Your task to perform on an android device: turn off notifications in google photos Image 0: 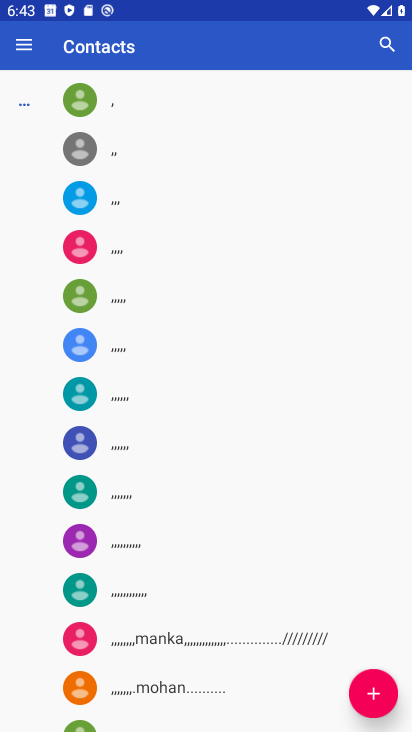
Step 0: press home button
Your task to perform on an android device: turn off notifications in google photos Image 1: 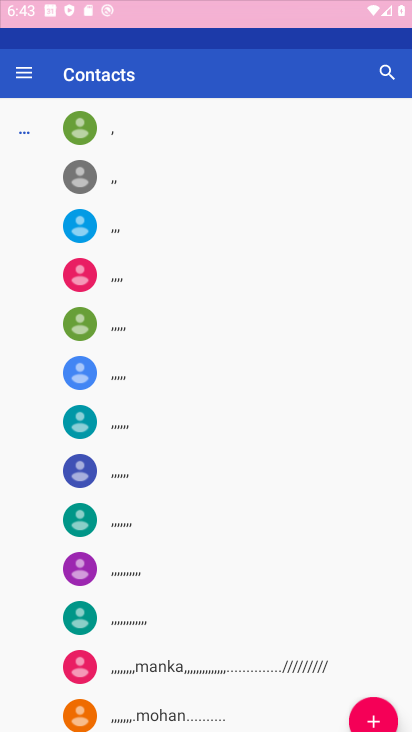
Step 1: drag from (339, 655) to (307, 94)
Your task to perform on an android device: turn off notifications in google photos Image 2: 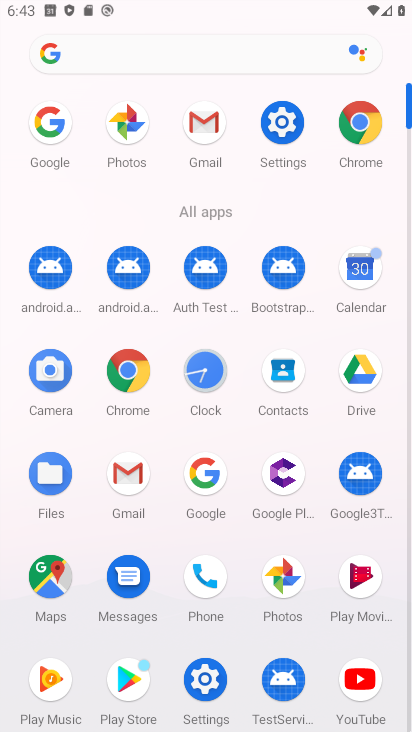
Step 2: click (292, 590)
Your task to perform on an android device: turn off notifications in google photos Image 3: 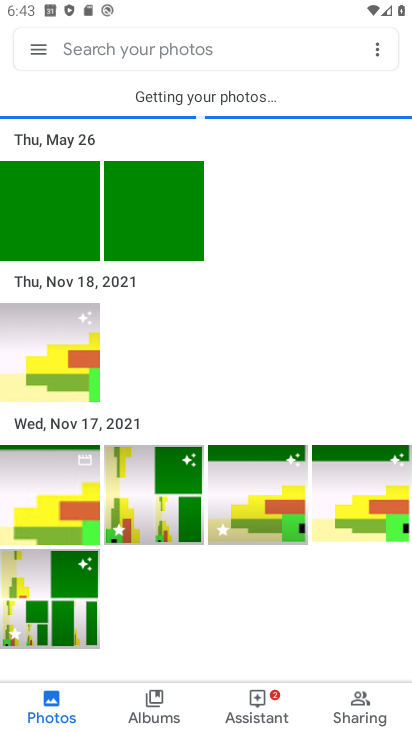
Step 3: click (30, 46)
Your task to perform on an android device: turn off notifications in google photos Image 4: 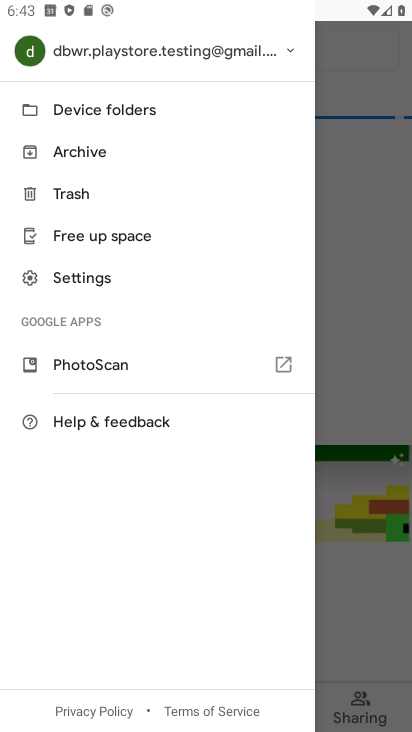
Step 4: click (76, 269)
Your task to perform on an android device: turn off notifications in google photos Image 5: 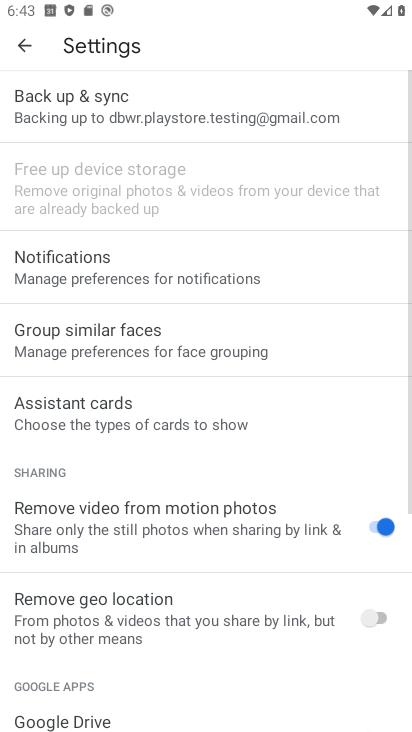
Step 5: click (243, 284)
Your task to perform on an android device: turn off notifications in google photos Image 6: 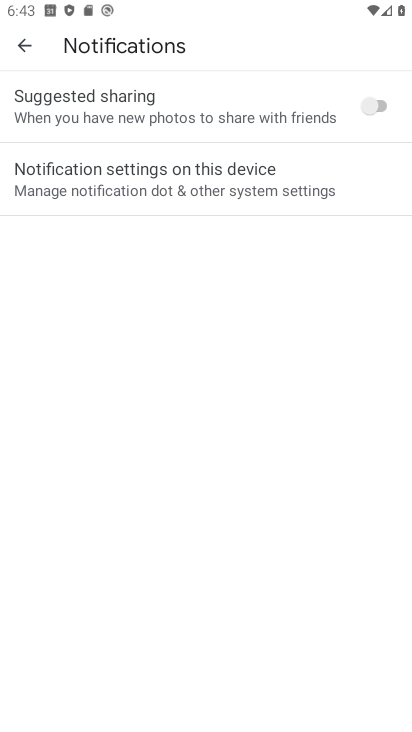
Step 6: task complete